Your task to perform on an android device: toggle sleep mode Image 0: 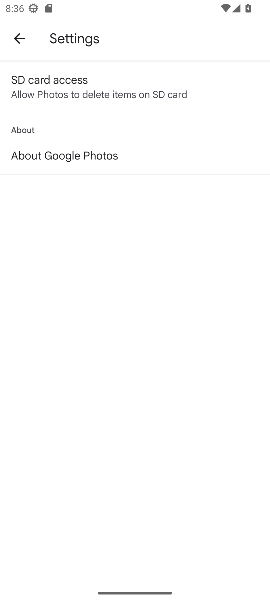
Step 0: press home button
Your task to perform on an android device: toggle sleep mode Image 1: 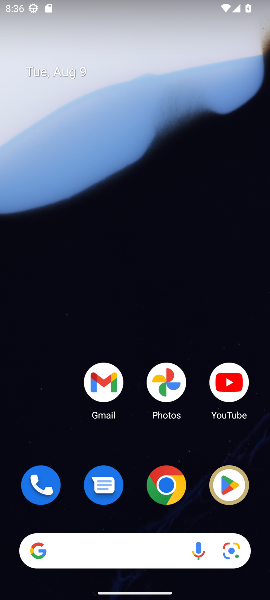
Step 1: drag from (173, 443) to (140, 64)
Your task to perform on an android device: toggle sleep mode Image 2: 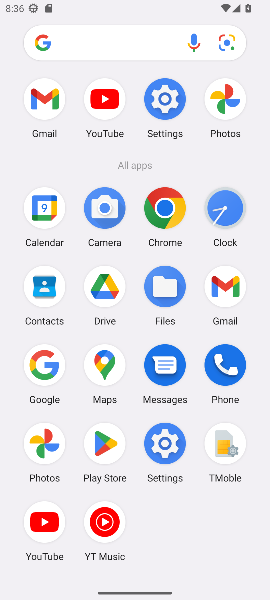
Step 2: click (169, 442)
Your task to perform on an android device: toggle sleep mode Image 3: 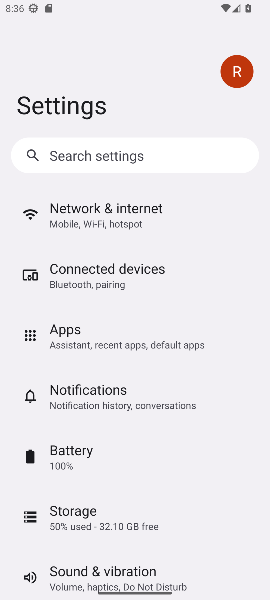
Step 3: drag from (158, 445) to (121, 214)
Your task to perform on an android device: toggle sleep mode Image 4: 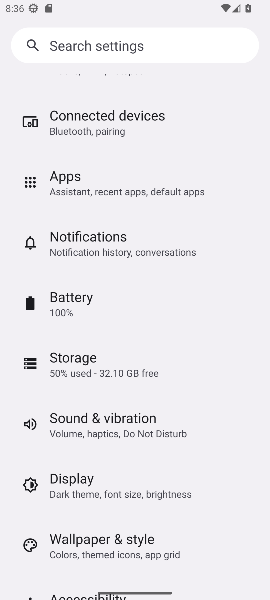
Step 4: click (123, 486)
Your task to perform on an android device: toggle sleep mode Image 5: 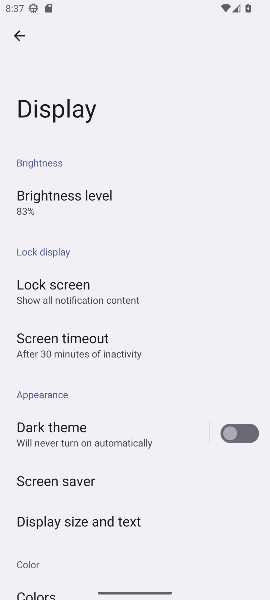
Step 5: task complete